Your task to perform on an android device: turn on javascript in the chrome app Image 0: 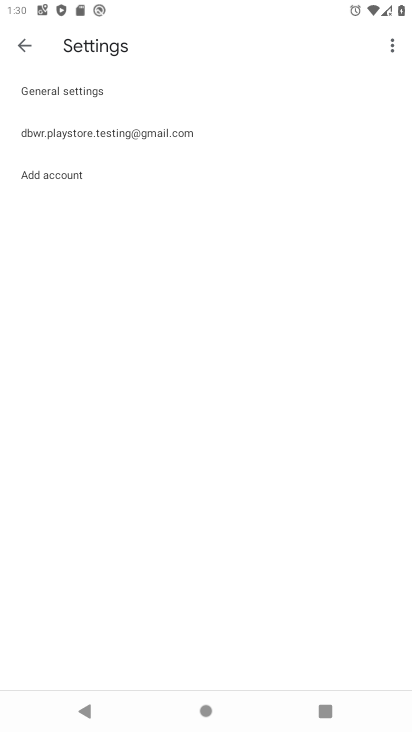
Step 0: press home button
Your task to perform on an android device: turn on javascript in the chrome app Image 1: 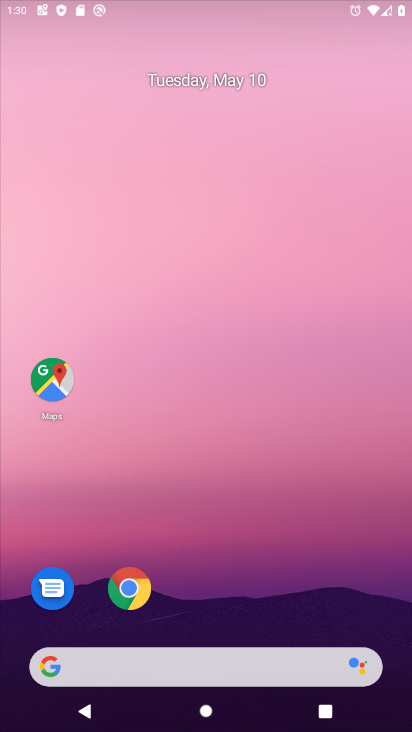
Step 1: drag from (283, 551) to (355, 67)
Your task to perform on an android device: turn on javascript in the chrome app Image 2: 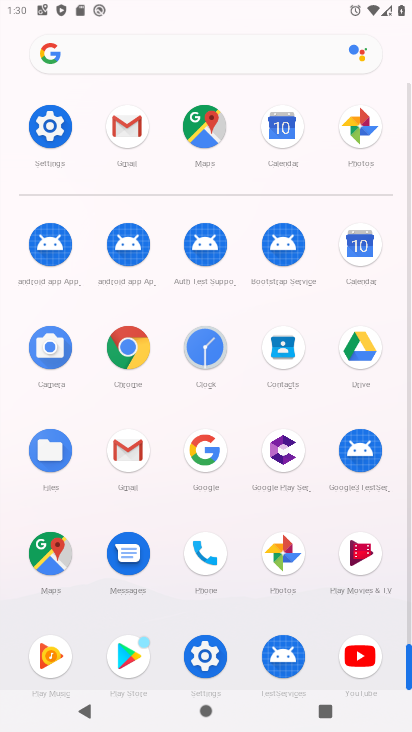
Step 2: click (113, 337)
Your task to perform on an android device: turn on javascript in the chrome app Image 3: 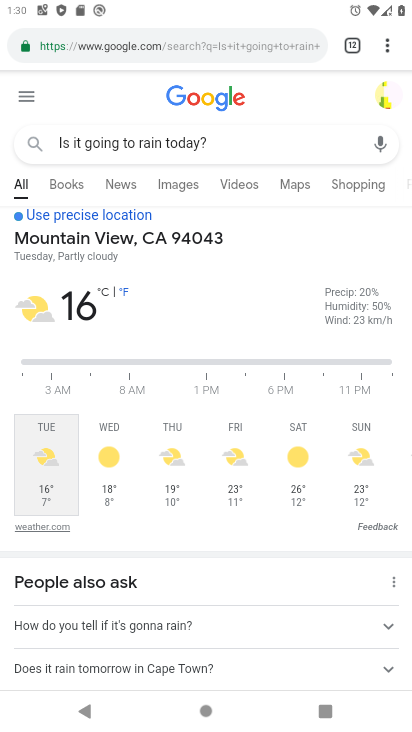
Step 3: click (380, 34)
Your task to perform on an android device: turn on javascript in the chrome app Image 4: 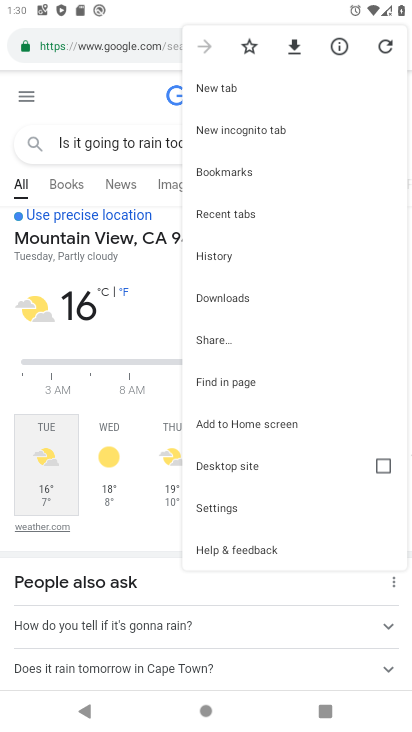
Step 4: click (224, 513)
Your task to perform on an android device: turn on javascript in the chrome app Image 5: 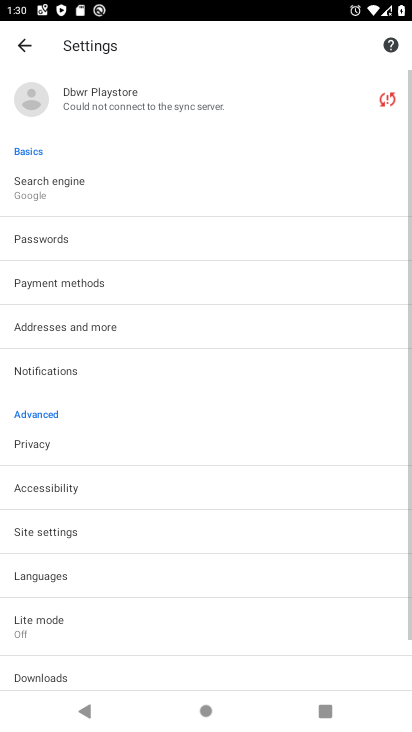
Step 5: drag from (176, 625) to (286, 223)
Your task to perform on an android device: turn on javascript in the chrome app Image 6: 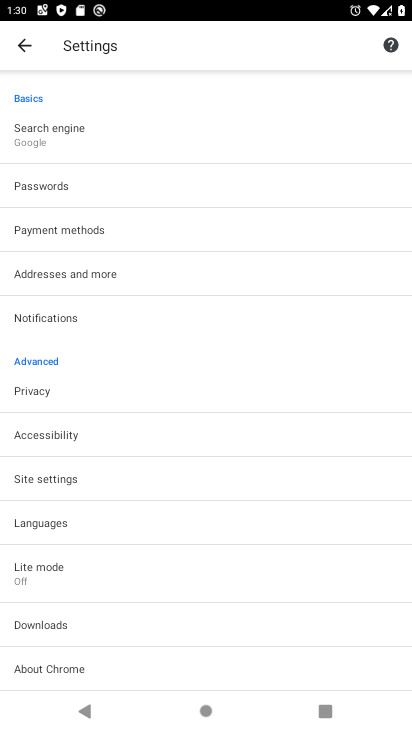
Step 6: click (96, 476)
Your task to perform on an android device: turn on javascript in the chrome app Image 7: 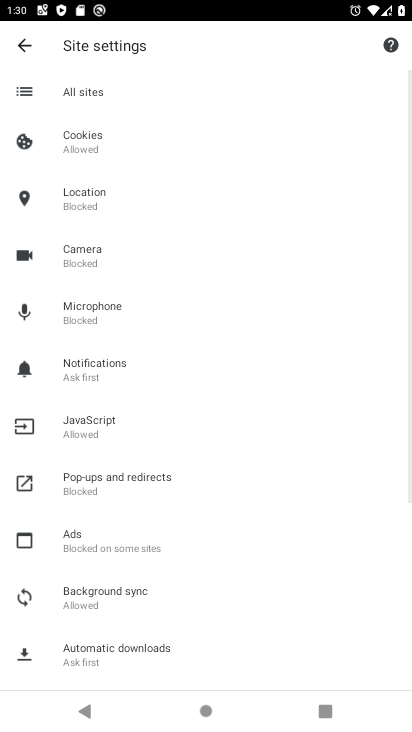
Step 7: click (132, 437)
Your task to perform on an android device: turn on javascript in the chrome app Image 8: 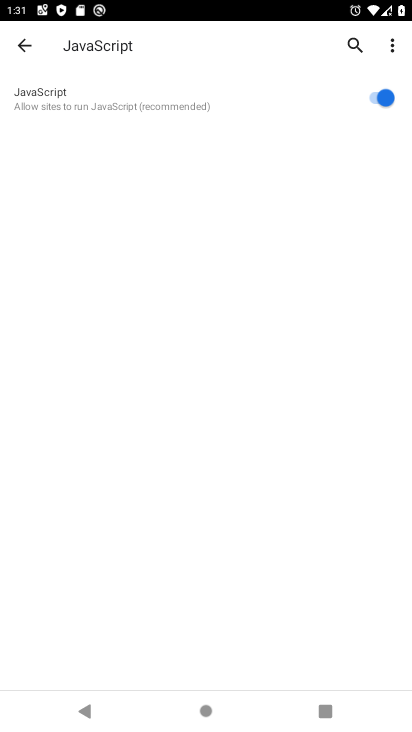
Step 8: task complete